Your task to perform on an android device: turn off picture-in-picture Image 0: 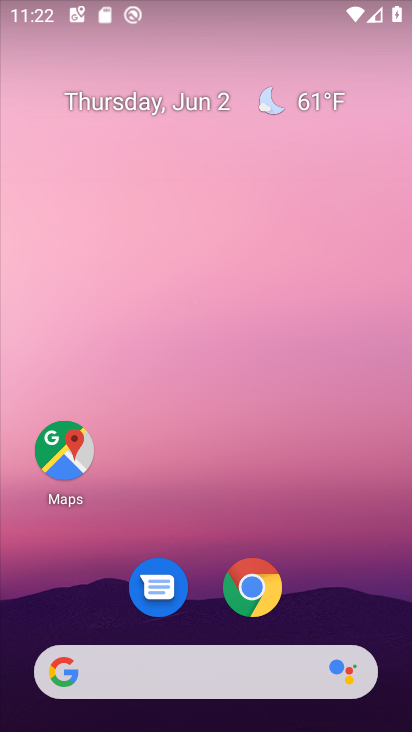
Step 0: click (250, 579)
Your task to perform on an android device: turn off picture-in-picture Image 1: 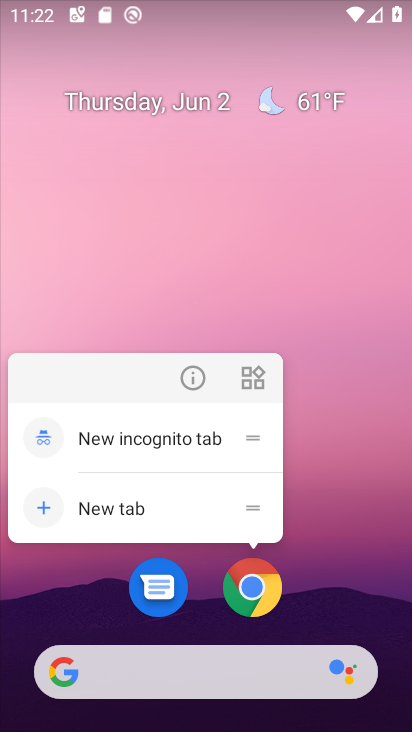
Step 1: click (189, 373)
Your task to perform on an android device: turn off picture-in-picture Image 2: 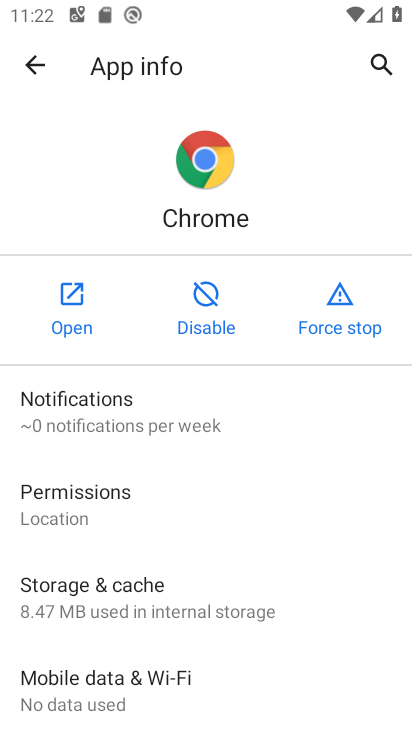
Step 2: drag from (185, 545) to (215, 182)
Your task to perform on an android device: turn off picture-in-picture Image 3: 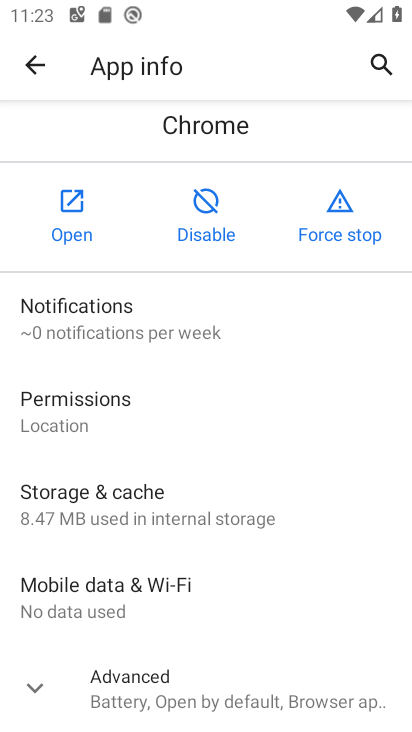
Step 3: click (40, 685)
Your task to perform on an android device: turn off picture-in-picture Image 4: 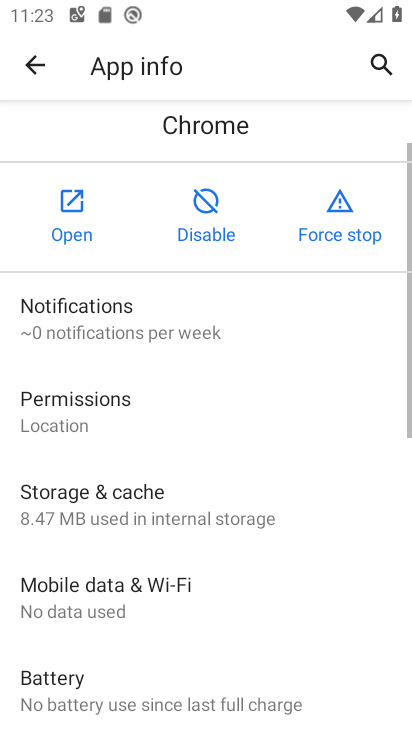
Step 4: drag from (266, 606) to (289, 153)
Your task to perform on an android device: turn off picture-in-picture Image 5: 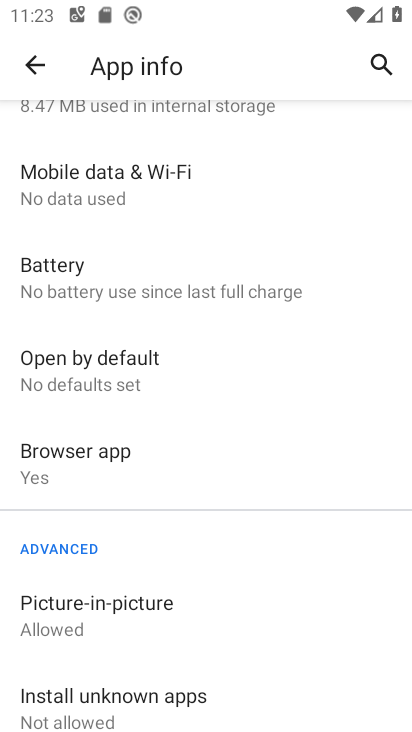
Step 5: click (189, 596)
Your task to perform on an android device: turn off picture-in-picture Image 6: 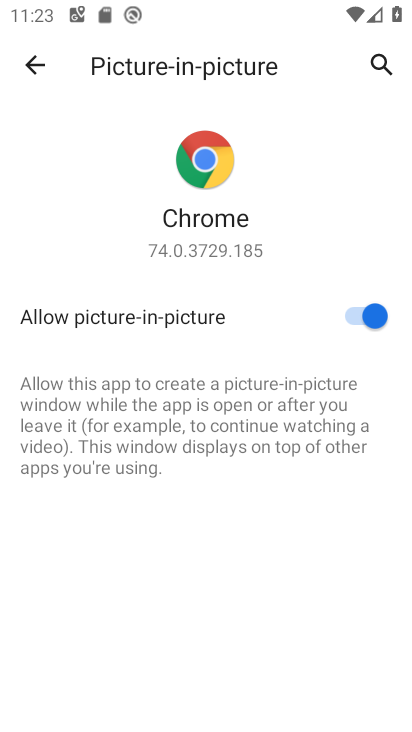
Step 6: click (351, 293)
Your task to perform on an android device: turn off picture-in-picture Image 7: 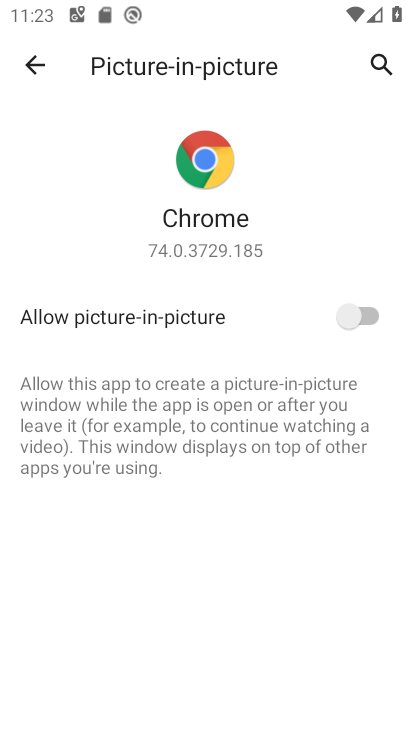
Step 7: task complete